Your task to perform on an android device: Open Google Maps Image 0: 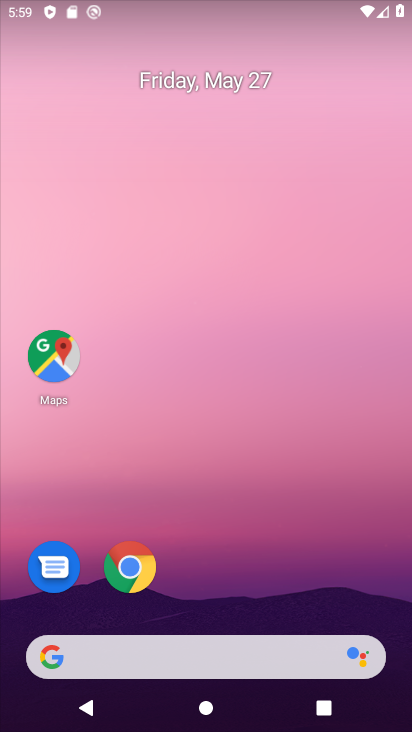
Step 0: click (49, 357)
Your task to perform on an android device: Open Google Maps Image 1: 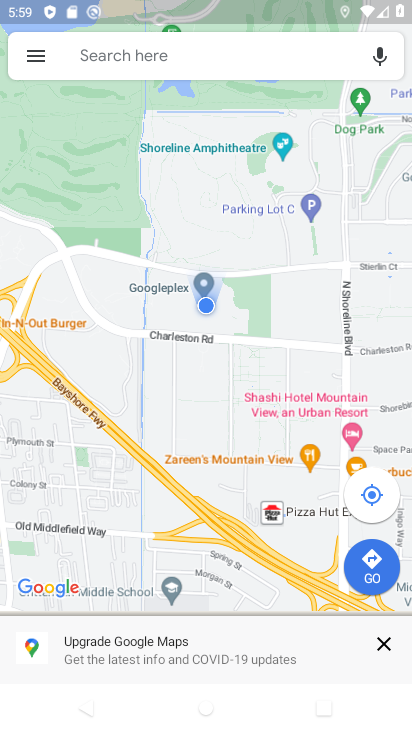
Step 1: task complete